Your task to perform on an android device: toggle sleep mode Image 0: 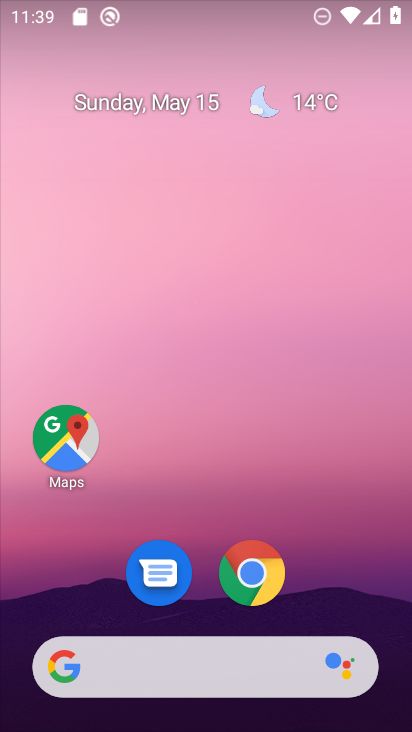
Step 0: drag from (267, 459) to (166, 84)
Your task to perform on an android device: toggle sleep mode Image 1: 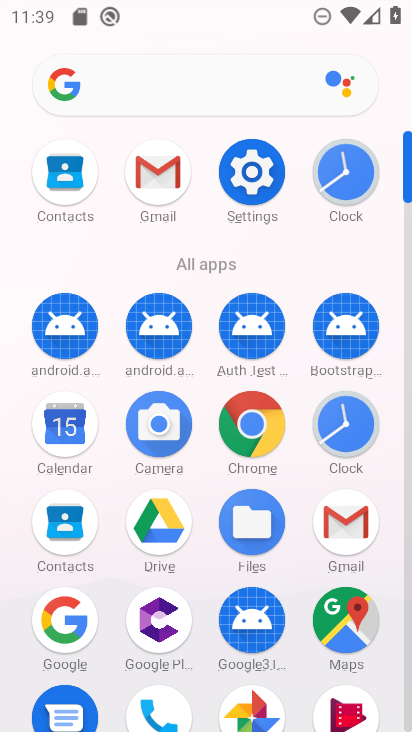
Step 1: click (251, 169)
Your task to perform on an android device: toggle sleep mode Image 2: 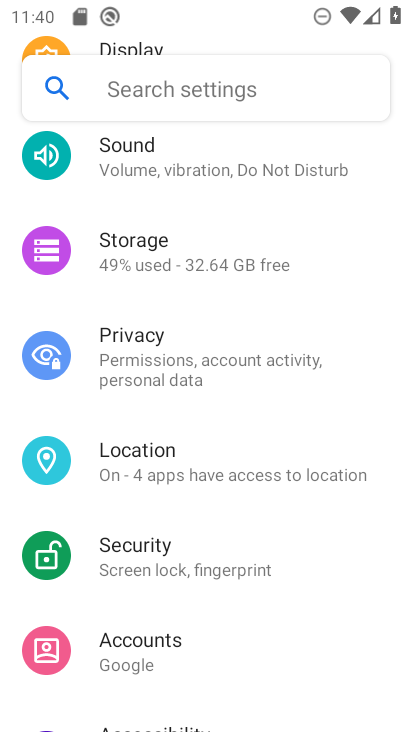
Step 2: drag from (160, 203) to (178, 551)
Your task to perform on an android device: toggle sleep mode Image 3: 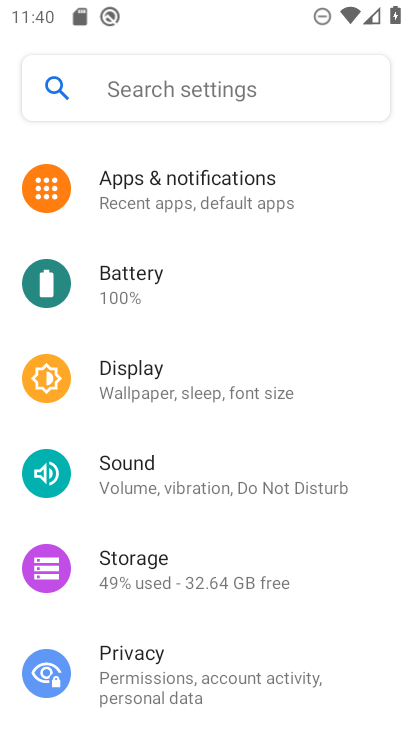
Step 3: click (125, 373)
Your task to perform on an android device: toggle sleep mode Image 4: 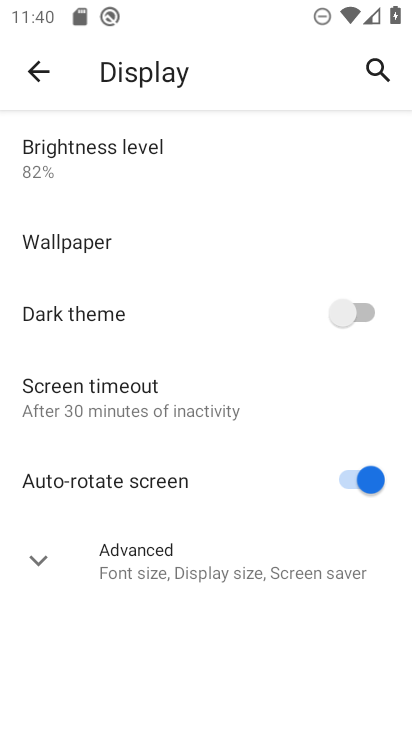
Step 4: task complete